Your task to perform on an android device: toggle priority inbox in the gmail app Image 0: 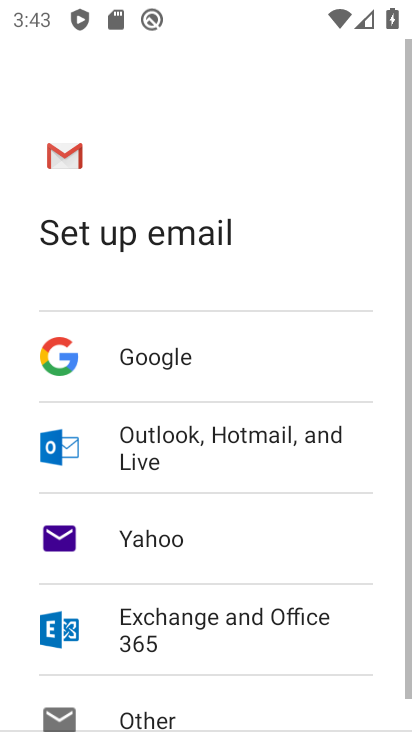
Step 0: press home button
Your task to perform on an android device: toggle priority inbox in the gmail app Image 1: 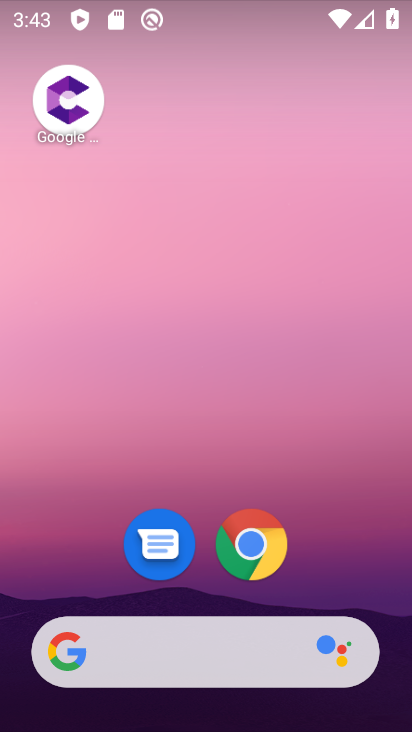
Step 1: drag from (213, 574) to (331, 12)
Your task to perform on an android device: toggle priority inbox in the gmail app Image 2: 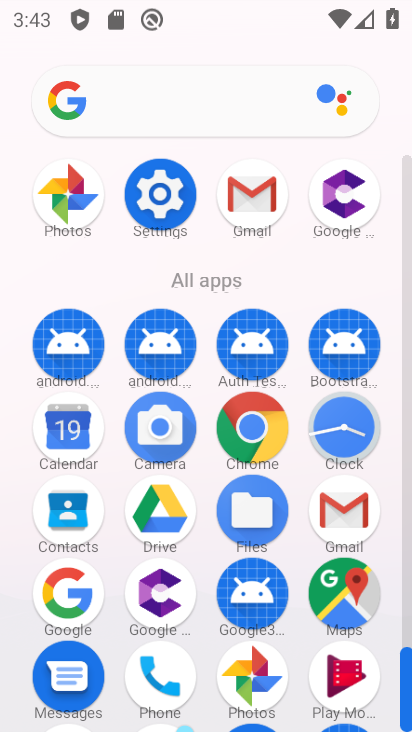
Step 2: click (358, 516)
Your task to perform on an android device: toggle priority inbox in the gmail app Image 3: 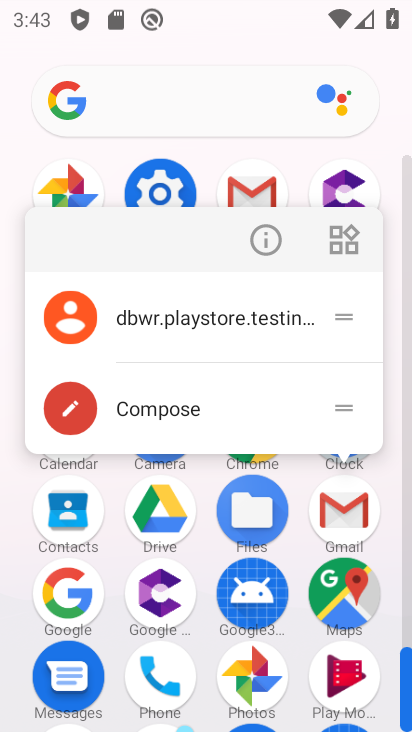
Step 3: click (326, 514)
Your task to perform on an android device: toggle priority inbox in the gmail app Image 4: 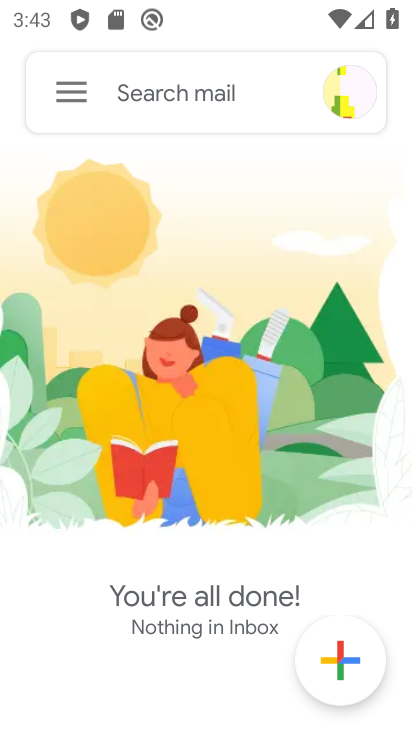
Step 4: click (66, 90)
Your task to perform on an android device: toggle priority inbox in the gmail app Image 5: 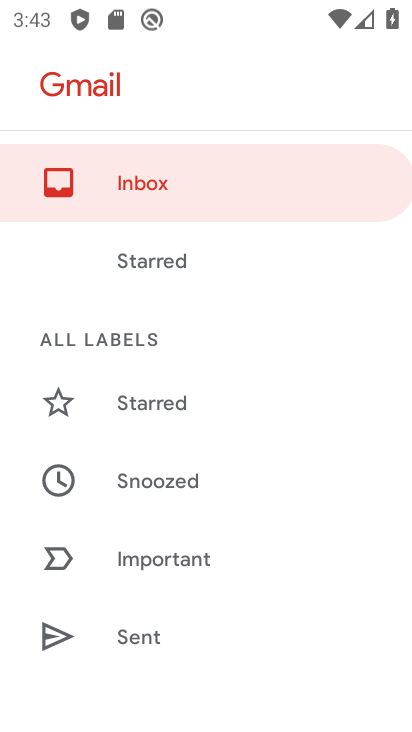
Step 5: drag from (128, 615) to (248, 8)
Your task to perform on an android device: toggle priority inbox in the gmail app Image 6: 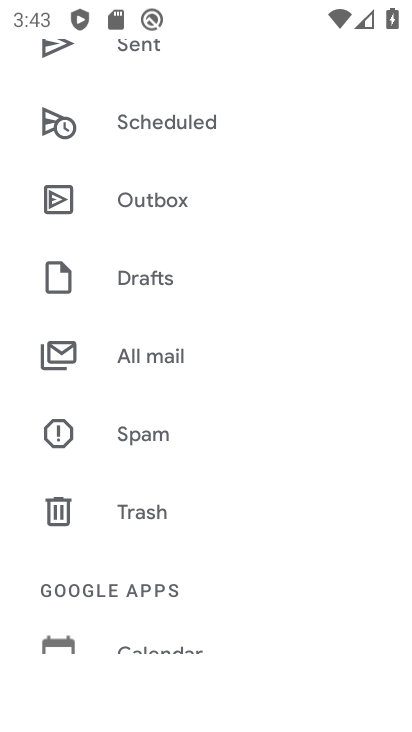
Step 6: drag from (139, 586) to (184, 68)
Your task to perform on an android device: toggle priority inbox in the gmail app Image 7: 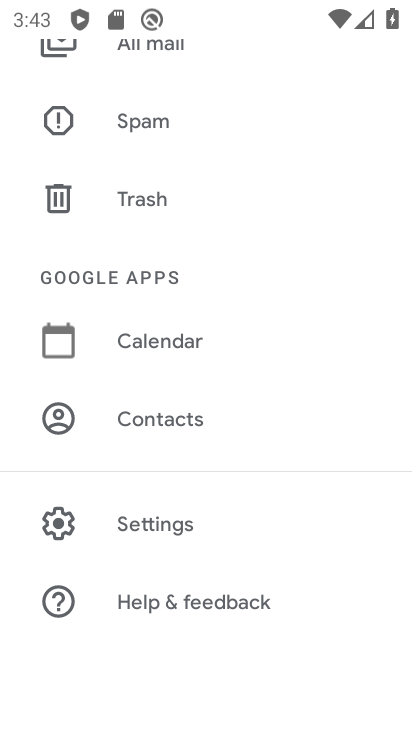
Step 7: click (168, 531)
Your task to perform on an android device: toggle priority inbox in the gmail app Image 8: 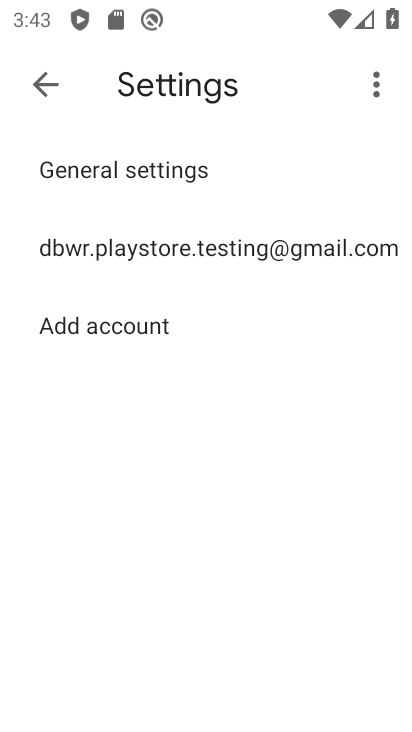
Step 8: click (158, 259)
Your task to perform on an android device: toggle priority inbox in the gmail app Image 9: 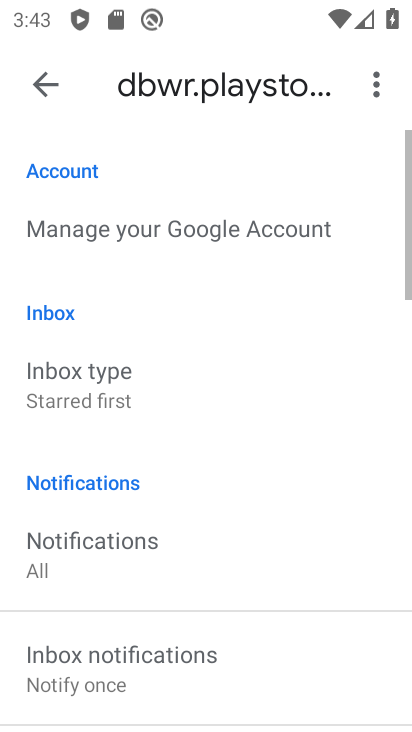
Step 9: click (96, 401)
Your task to perform on an android device: toggle priority inbox in the gmail app Image 10: 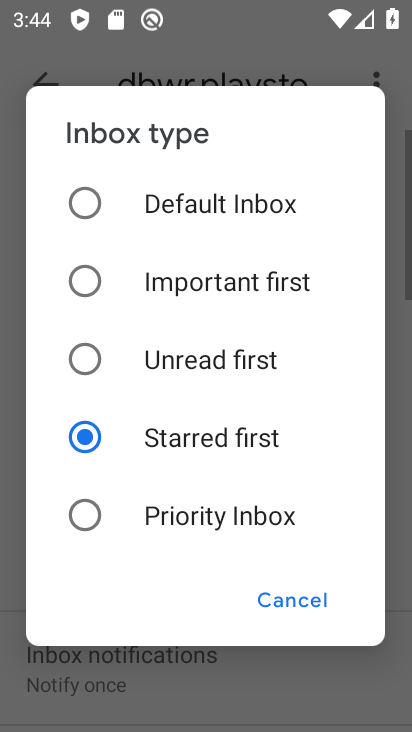
Step 10: click (105, 518)
Your task to perform on an android device: toggle priority inbox in the gmail app Image 11: 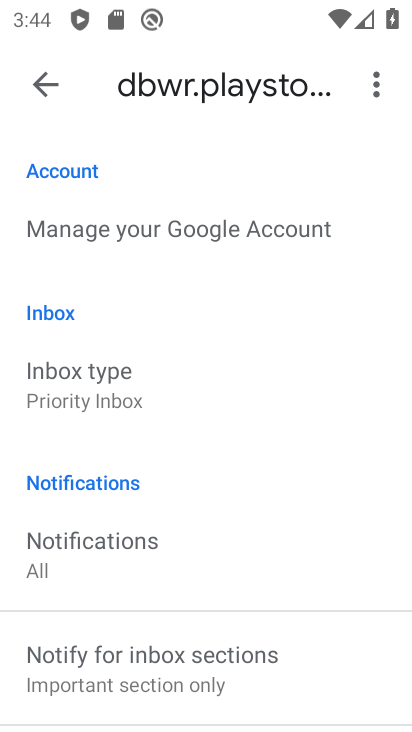
Step 11: task complete